Your task to perform on an android device: Search for Italian restaurants on Maps Image 0: 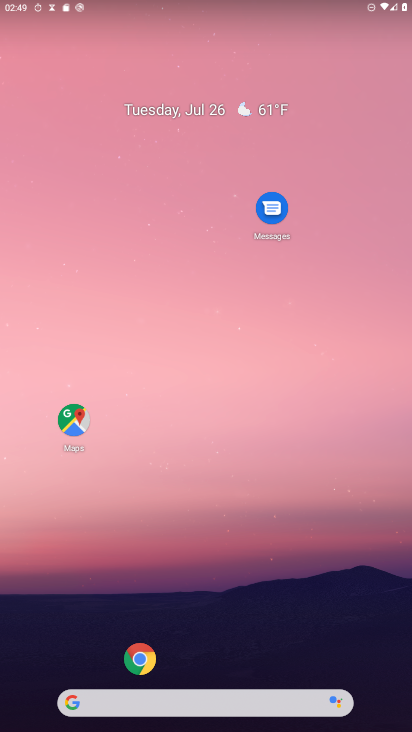
Step 0: click (77, 411)
Your task to perform on an android device: Search for Italian restaurants on Maps Image 1: 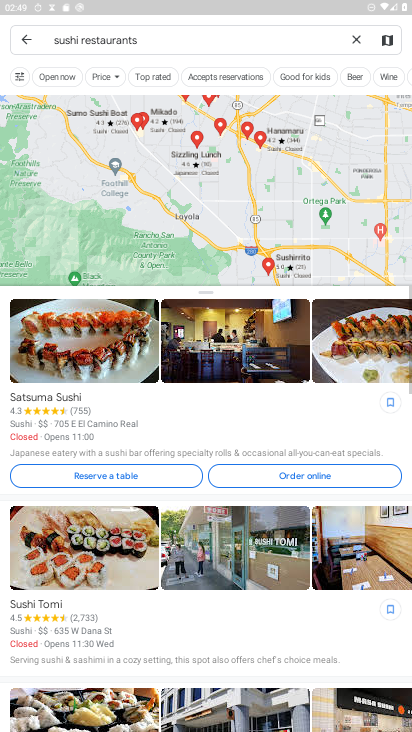
Step 1: click (357, 28)
Your task to perform on an android device: Search for Italian restaurants on Maps Image 2: 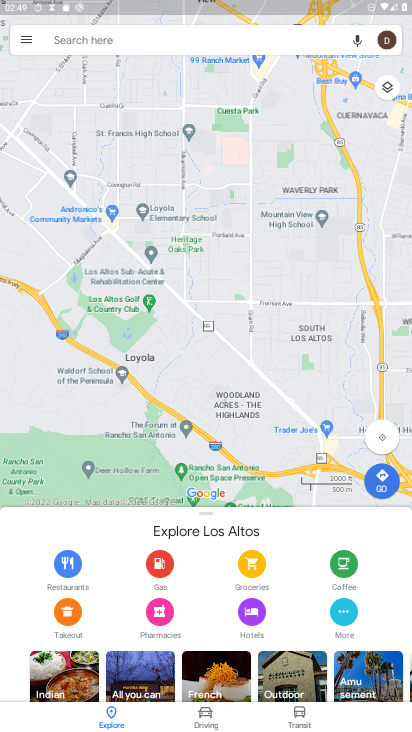
Step 2: click (79, 44)
Your task to perform on an android device: Search for Italian restaurants on Maps Image 3: 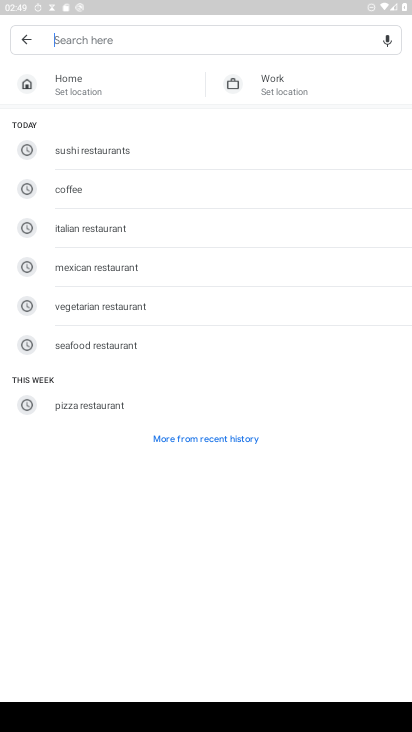
Step 3: click (101, 228)
Your task to perform on an android device: Search for Italian restaurants on Maps Image 4: 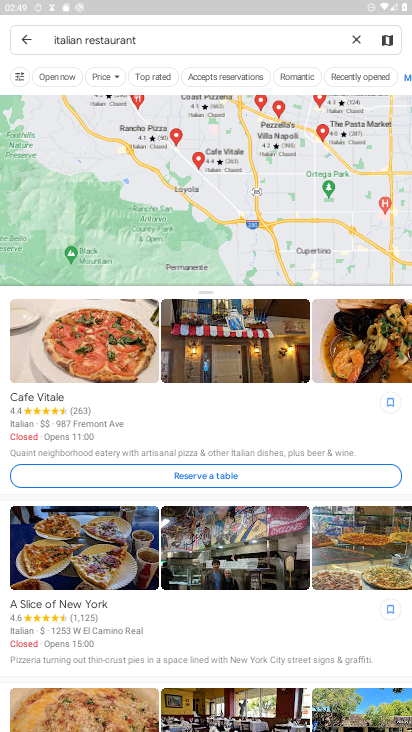
Step 4: task complete